Your task to perform on an android device: check battery use Image 0: 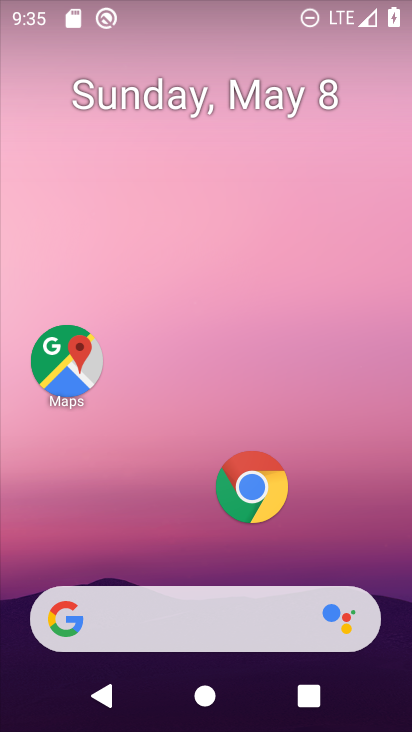
Step 0: drag from (175, 522) to (251, 44)
Your task to perform on an android device: check battery use Image 1: 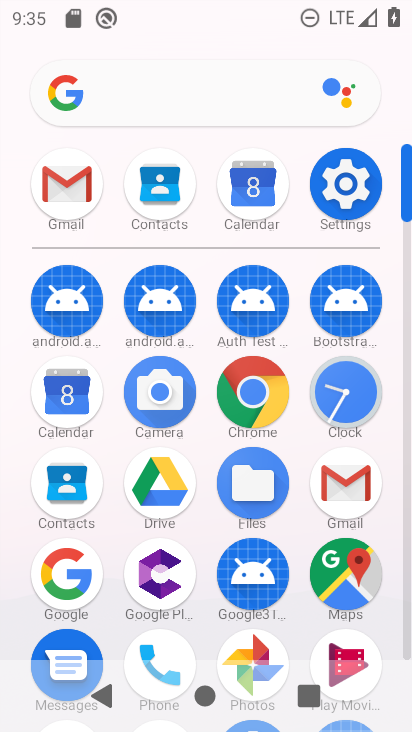
Step 1: click (343, 186)
Your task to perform on an android device: check battery use Image 2: 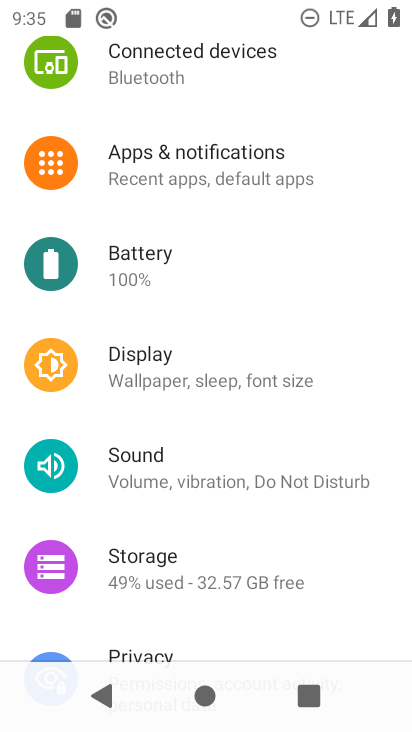
Step 2: click (182, 266)
Your task to perform on an android device: check battery use Image 3: 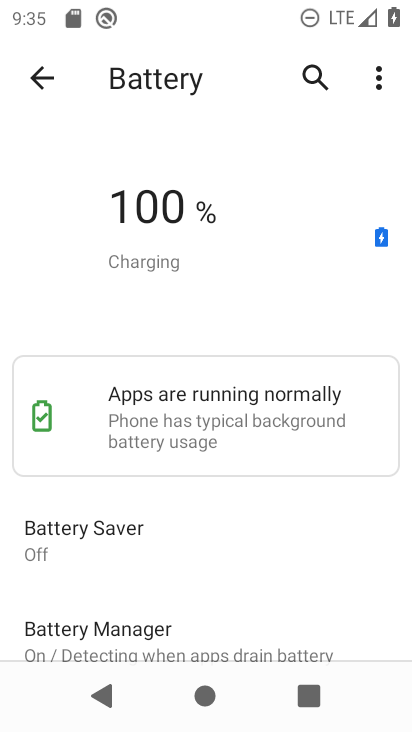
Step 3: click (373, 80)
Your task to perform on an android device: check battery use Image 4: 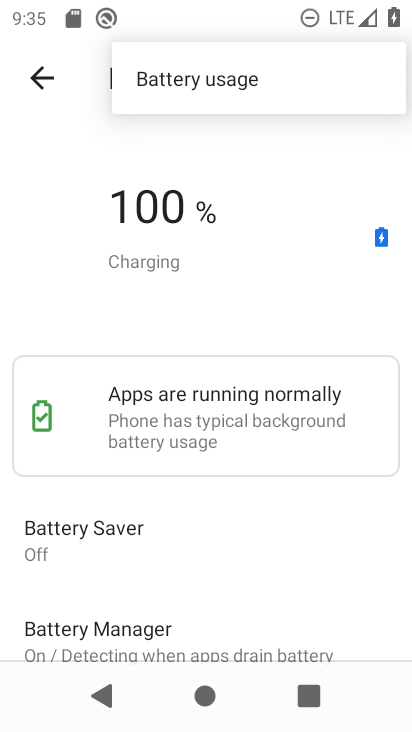
Step 4: click (252, 81)
Your task to perform on an android device: check battery use Image 5: 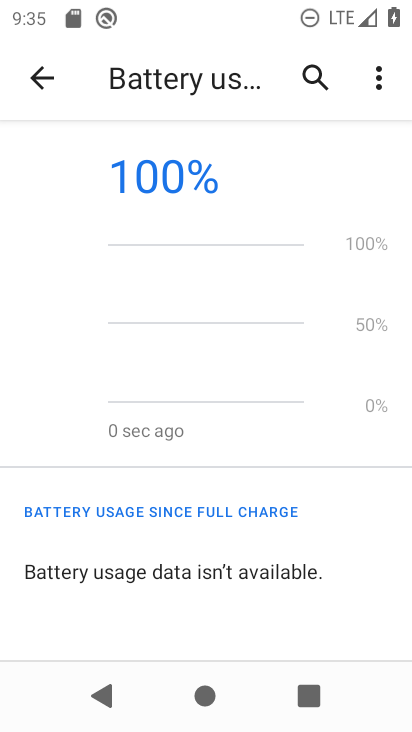
Step 5: task complete